Your task to perform on an android device: Search for Italian restaurants on Maps Image 0: 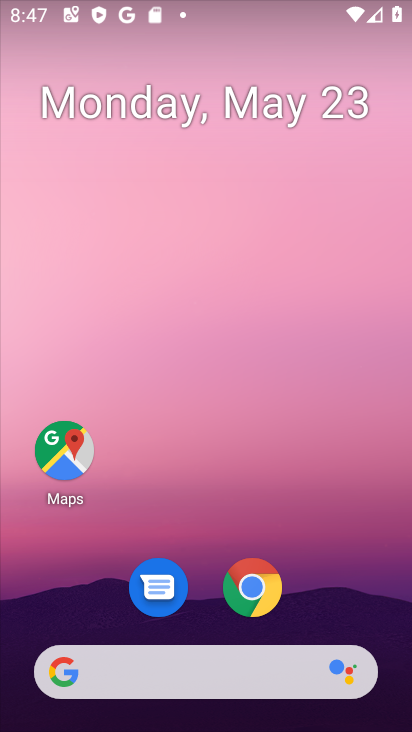
Step 0: click (48, 452)
Your task to perform on an android device: Search for Italian restaurants on Maps Image 1: 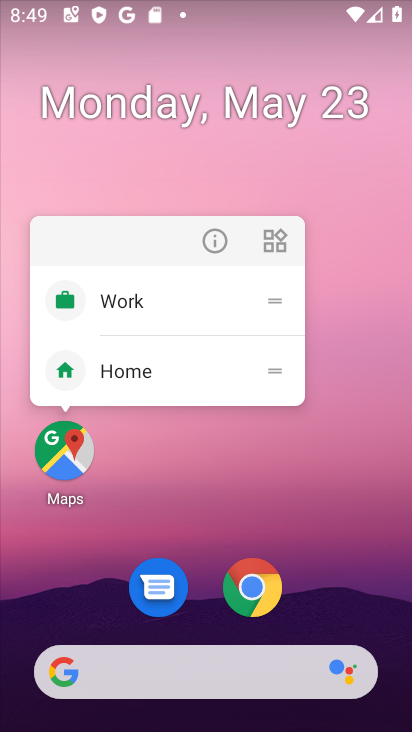
Step 1: click (65, 449)
Your task to perform on an android device: Search for Italian restaurants on Maps Image 2: 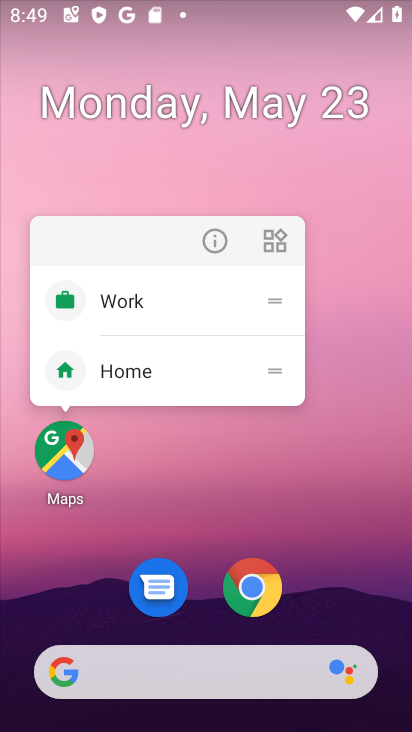
Step 2: click (64, 452)
Your task to perform on an android device: Search for Italian restaurants on Maps Image 3: 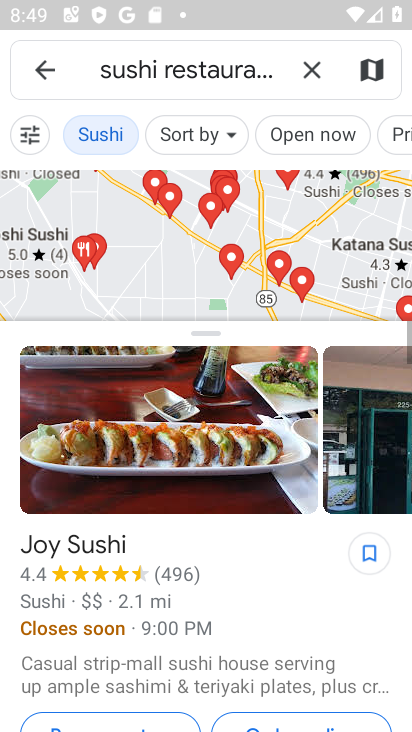
Step 3: click (308, 71)
Your task to perform on an android device: Search for Italian restaurants on Maps Image 4: 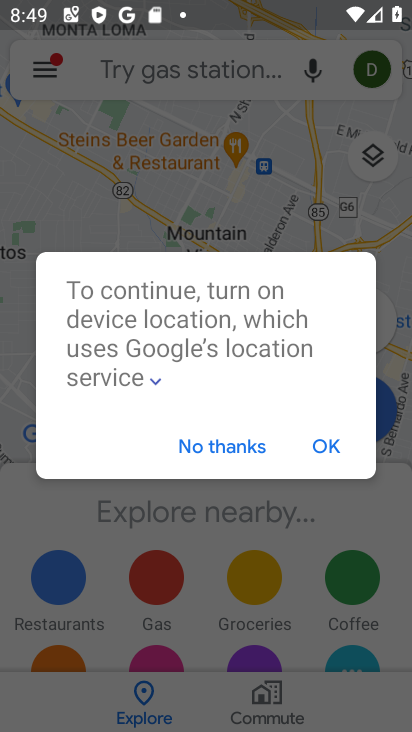
Step 4: click (201, 429)
Your task to perform on an android device: Search for Italian restaurants on Maps Image 5: 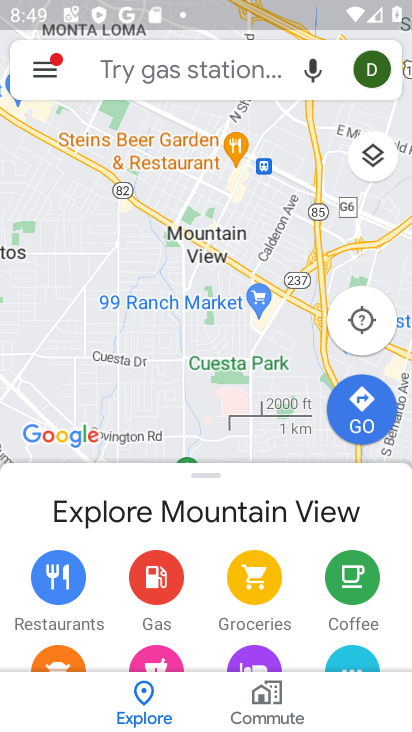
Step 5: click (165, 72)
Your task to perform on an android device: Search for Italian restaurants on Maps Image 6: 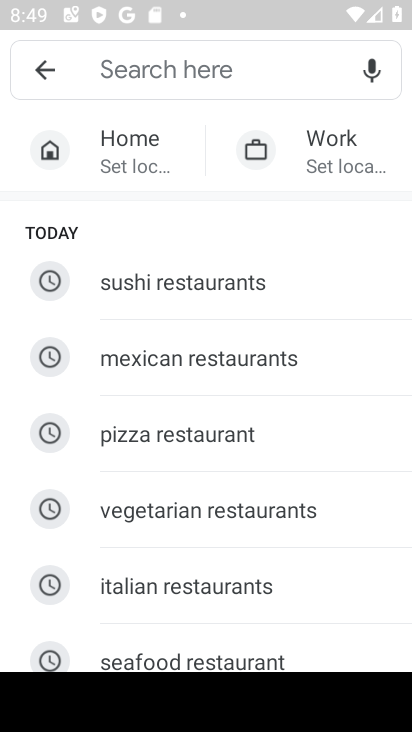
Step 6: click (147, 583)
Your task to perform on an android device: Search for Italian restaurants on Maps Image 7: 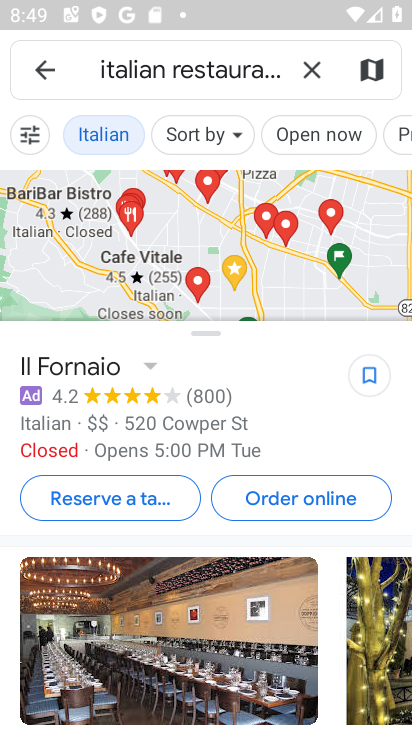
Step 7: task complete